Your task to perform on an android device: read, delete, or share a saved page in the chrome app Image 0: 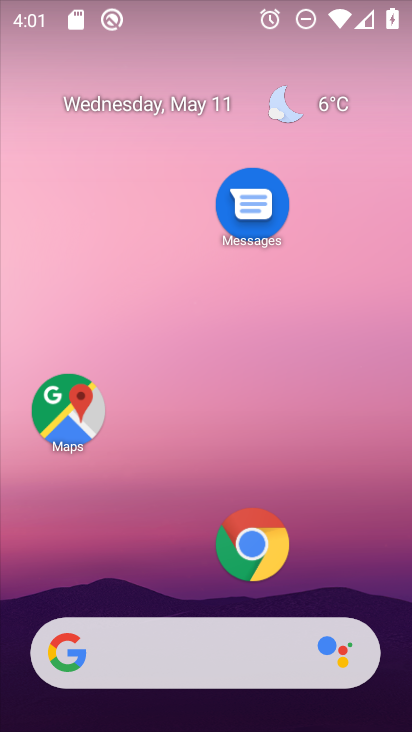
Step 0: click (262, 536)
Your task to perform on an android device: read, delete, or share a saved page in the chrome app Image 1: 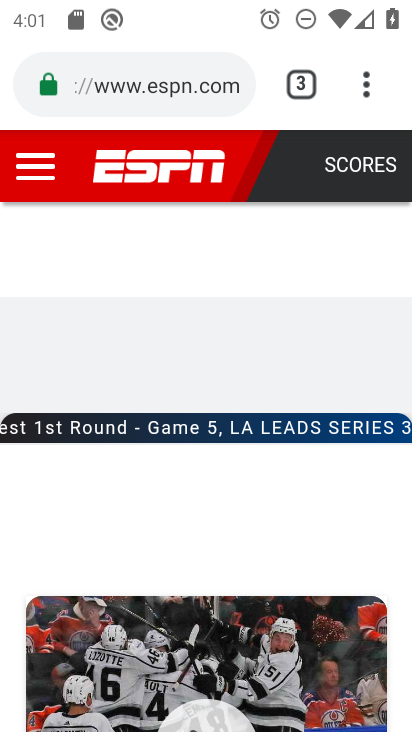
Step 1: drag from (364, 84) to (94, 555)
Your task to perform on an android device: read, delete, or share a saved page in the chrome app Image 2: 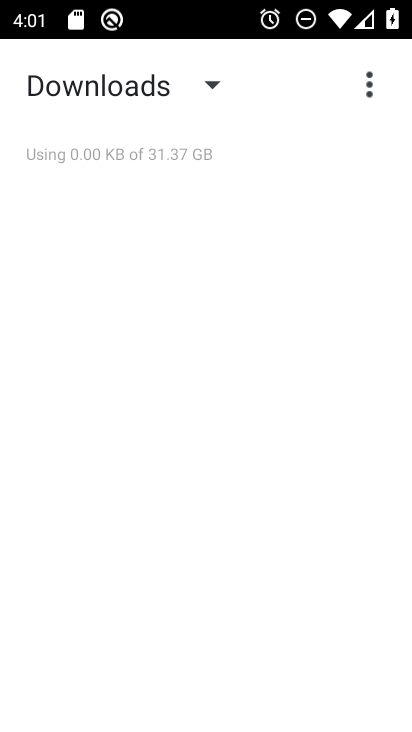
Step 2: click (210, 85)
Your task to perform on an android device: read, delete, or share a saved page in the chrome app Image 3: 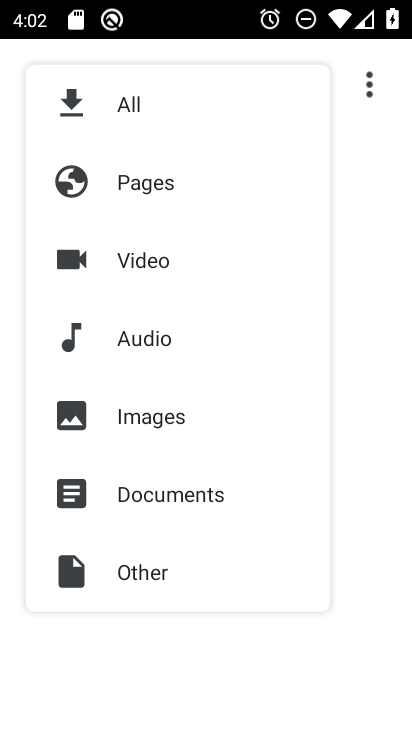
Step 3: click (165, 177)
Your task to perform on an android device: read, delete, or share a saved page in the chrome app Image 4: 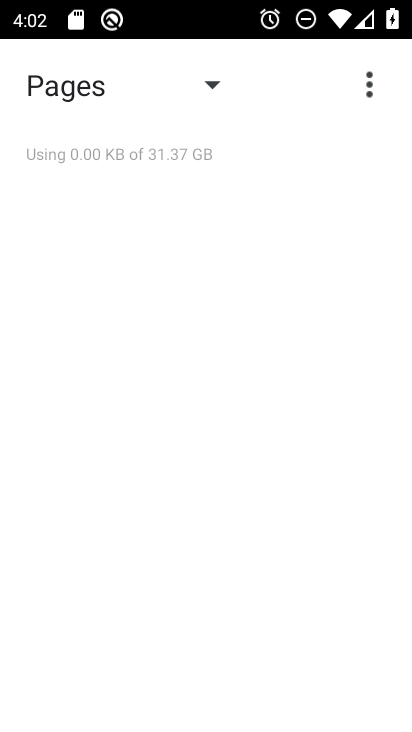
Step 4: task complete